Your task to perform on an android device: change the clock display to digital Image 0: 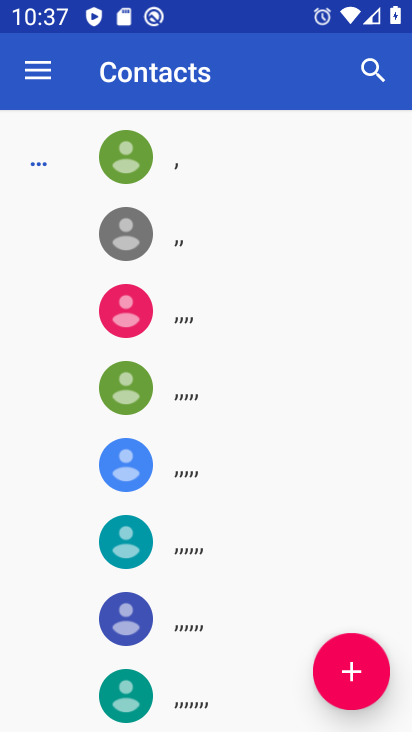
Step 0: press home button
Your task to perform on an android device: change the clock display to digital Image 1: 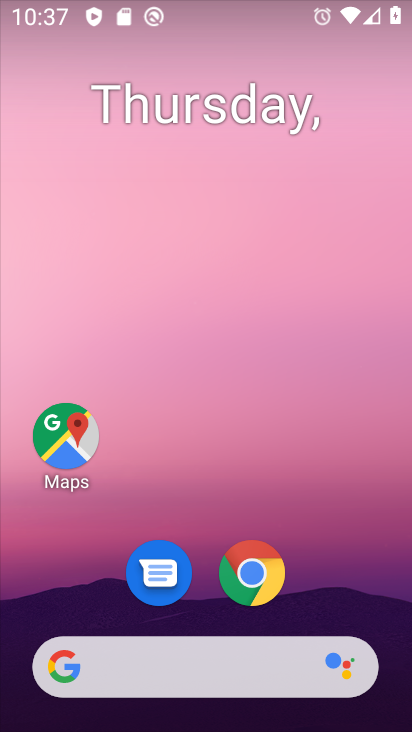
Step 1: drag from (365, 581) to (313, 112)
Your task to perform on an android device: change the clock display to digital Image 2: 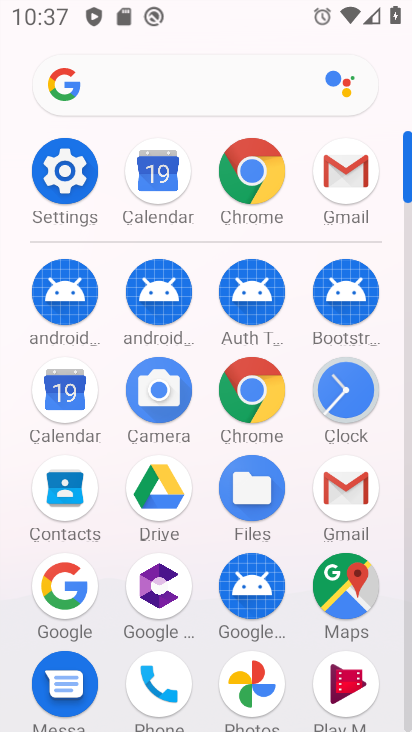
Step 2: click (327, 396)
Your task to perform on an android device: change the clock display to digital Image 3: 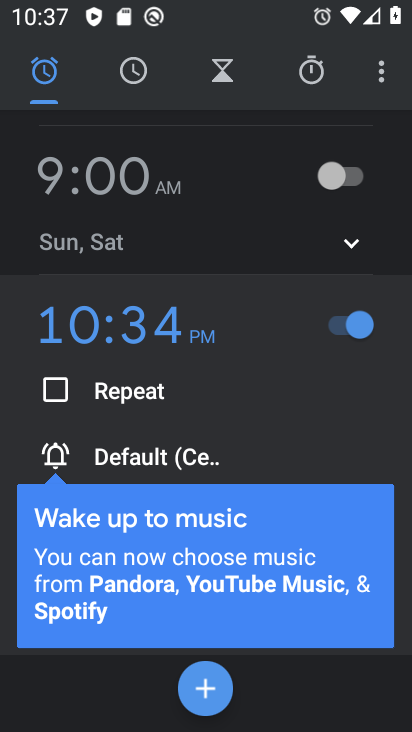
Step 3: click (391, 76)
Your task to perform on an android device: change the clock display to digital Image 4: 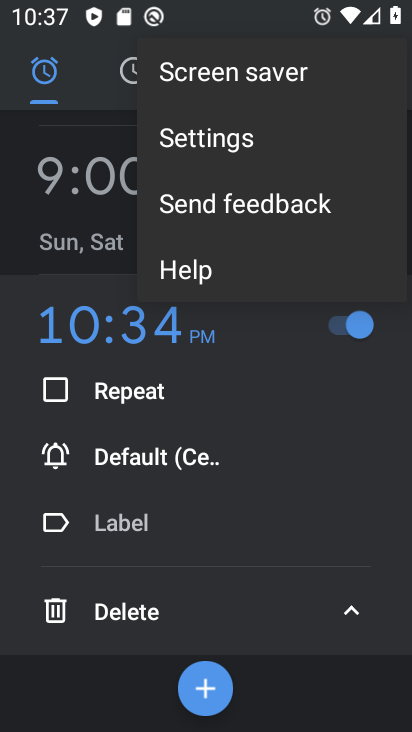
Step 4: click (299, 128)
Your task to perform on an android device: change the clock display to digital Image 5: 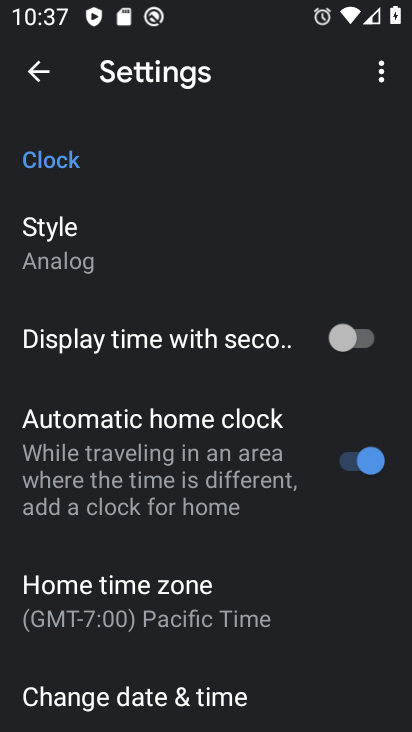
Step 5: click (55, 241)
Your task to perform on an android device: change the clock display to digital Image 6: 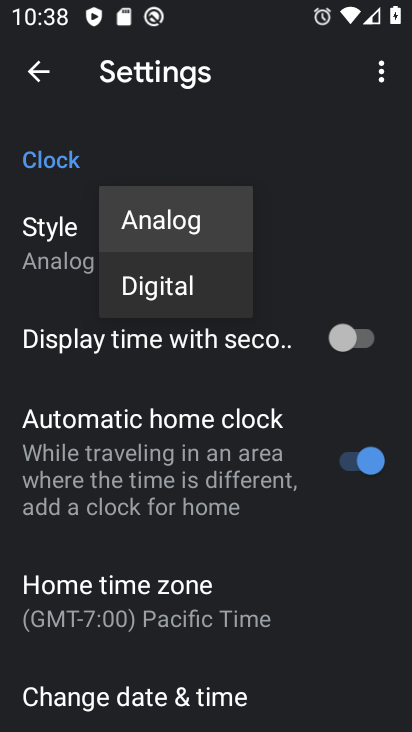
Step 6: click (197, 278)
Your task to perform on an android device: change the clock display to digital Image 7: 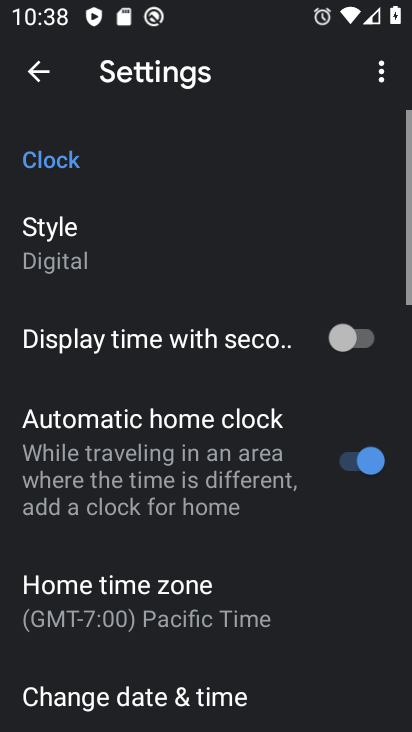
Step 7: task complete